Your task to perform on an android device: Open the calendar and show me this week's events Image 0: 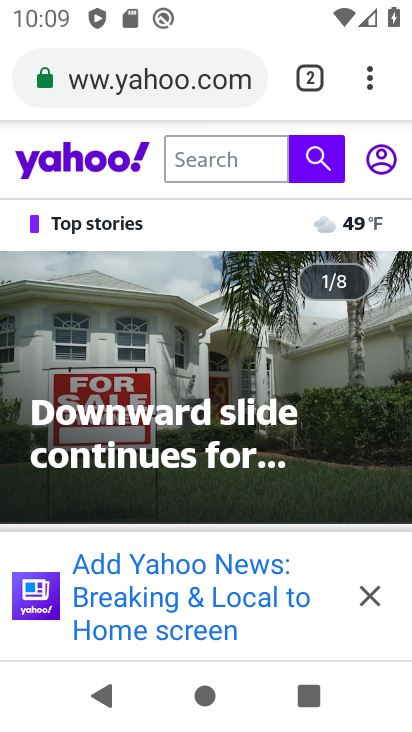
Step 0: press back button
Your task to perform on an android device: Open the calendar and show me this week's events Image 1: 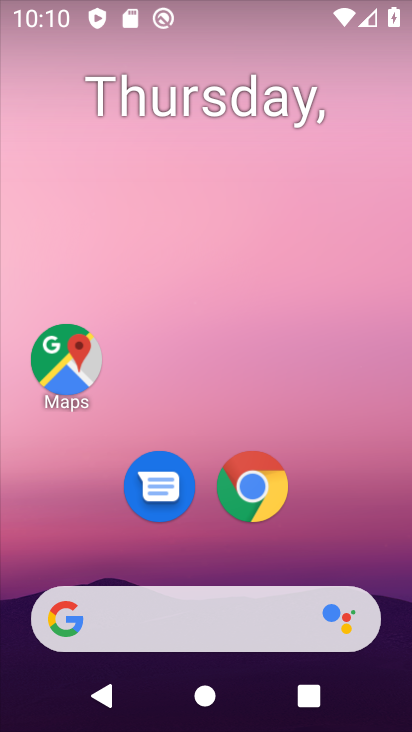
Step 1: drag from (226, 566) to (361, 29)
Your task to perform on an android device: Open the calendar and show me this week's events Image 2: 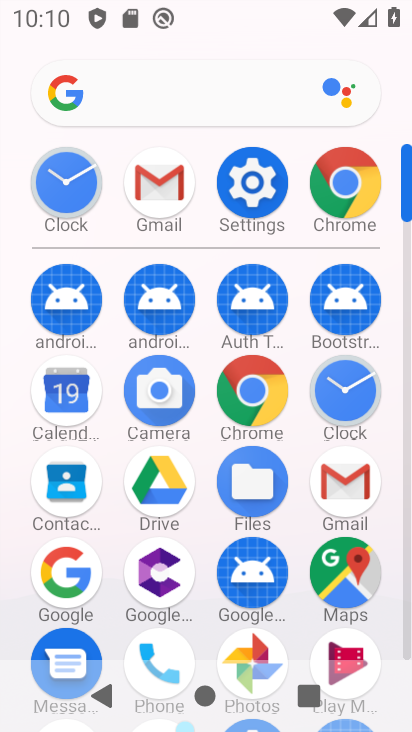
Step 2: click (60, 390)
Your task to perform on an android device: Open the calendar and show me this week's events Image 3: 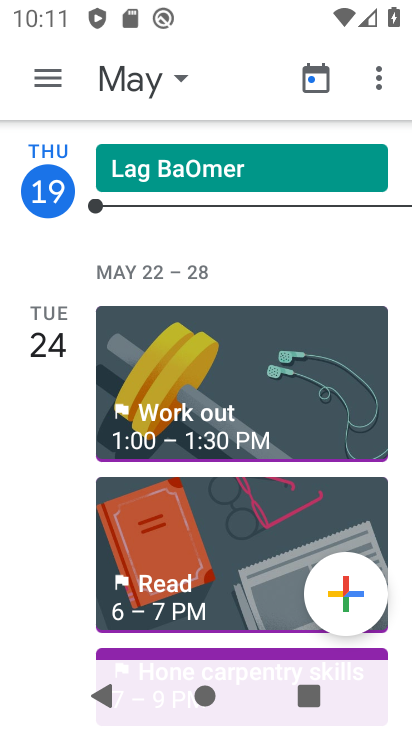
Step 3: click (156, 73)
Your task to perform on an android device: Open the calendar and show me this week's events Image 4: 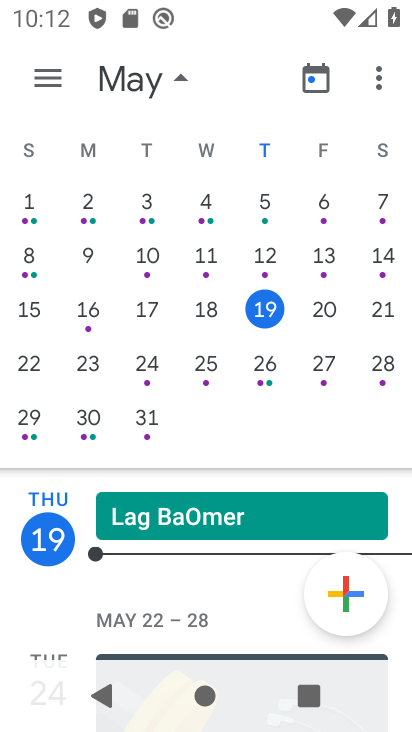
Step 4: drag from (182, 603) to (307, 146)
Your task to perform on an android device: Open the calendar and show me this week's events Image 5: 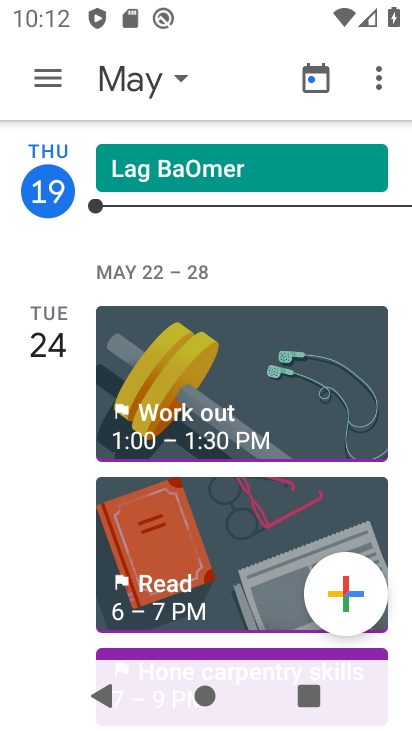
Step 5: click (160, 367)
Your task to perform on an android device: Open the calendar and show me this week's events Image 6: 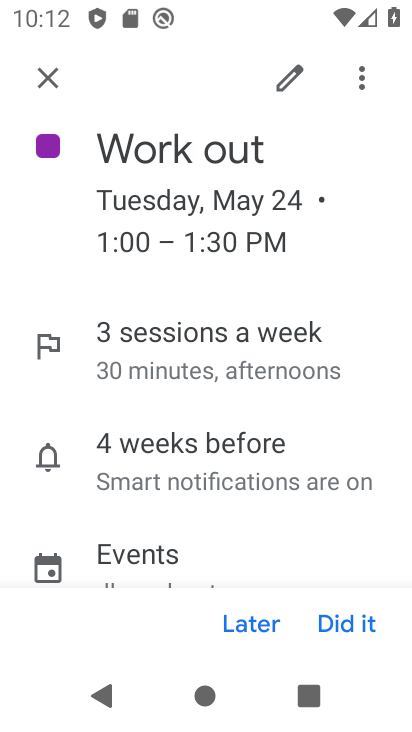
Step 6: task complete